Your task to perform on an android device: Go to location settings Image 0: 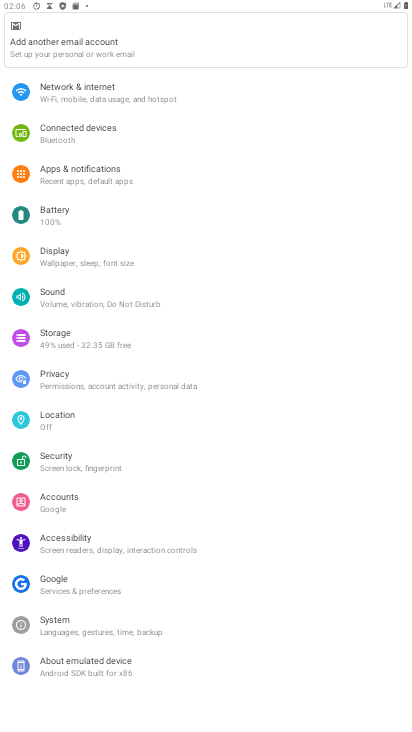
Step 0: click (70, 410)
Your task to perform on an android device: Go to location settings Image 1: 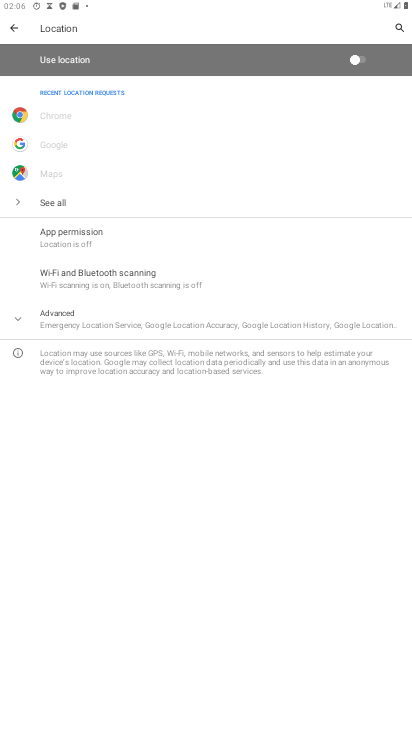
Step 1: task complete